Your task to perform on an android device: Turn off the flashlight Image 0: 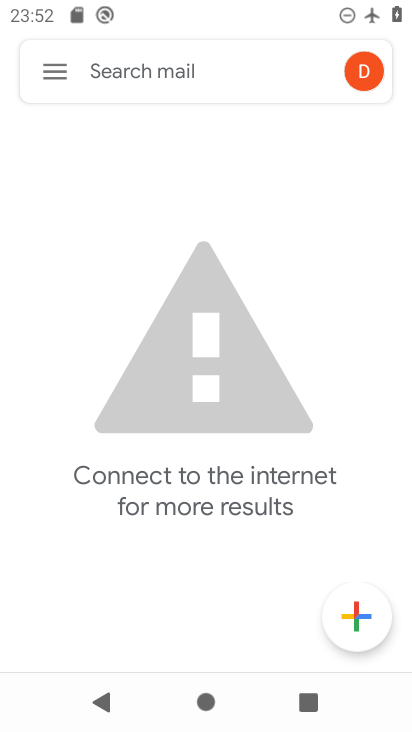
Step 0: press home button
Your task to perform on an android device: Turn off the flashlight Image 1: 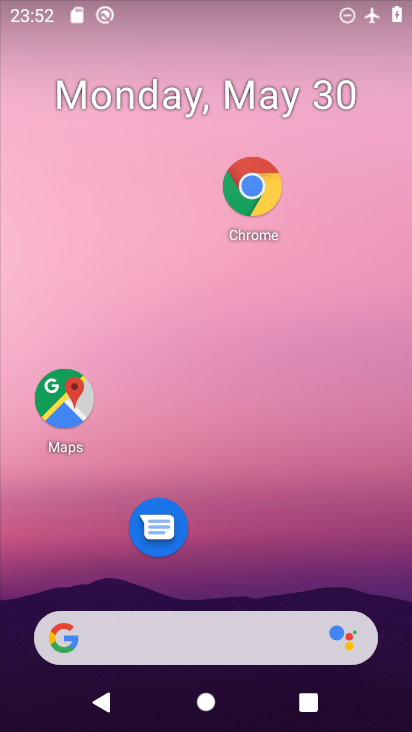
Step 1: drag from (205, 577) to (212, 219)
Your task to perform on an android device: Turn off the flashlight Image 2: 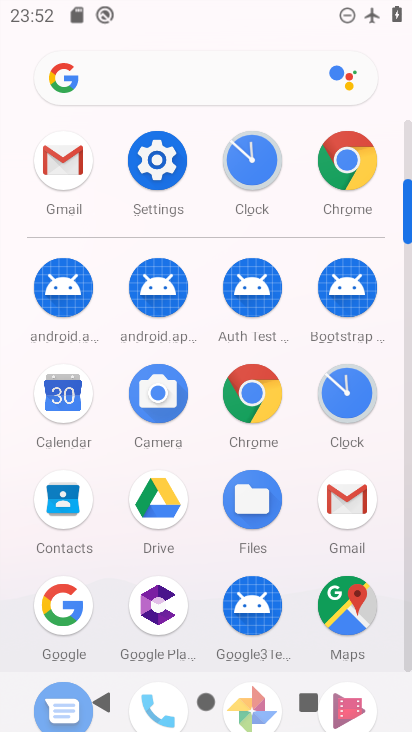
Step 2: click (161, 144)
Your task to perform on an android device: Turn off the flashlight Image 3: 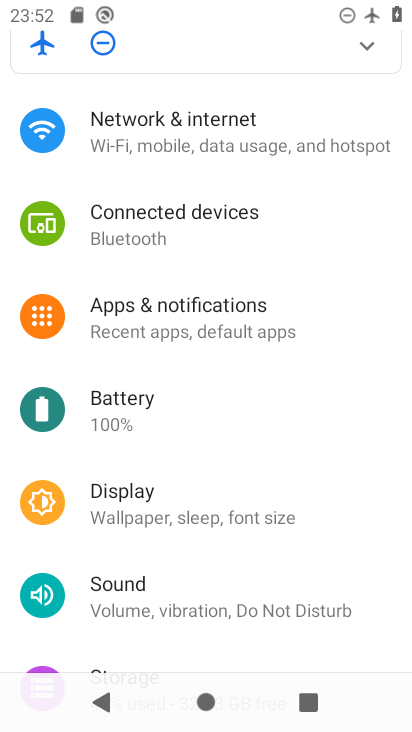
Step 3: task complete